Your task to perform on an android device: Open calendar and show me the second week of next month Image 0: 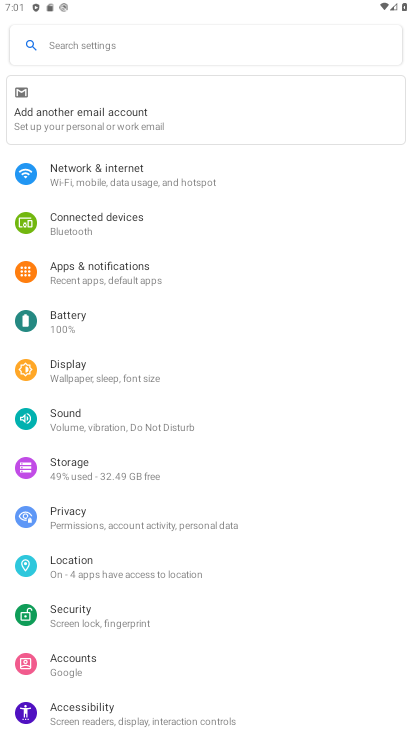
Step 0: press home button
Your task to perform on an android device: Open calendar and show me the second week of next month Image 1: 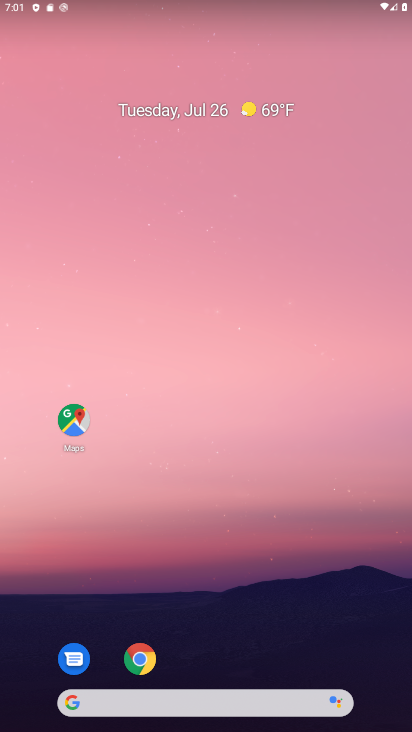
Step 1: drag from (197, 715) to (259, 103)
Your task to perform on an android device: Open calendar and show me the second week of next month Image 2: 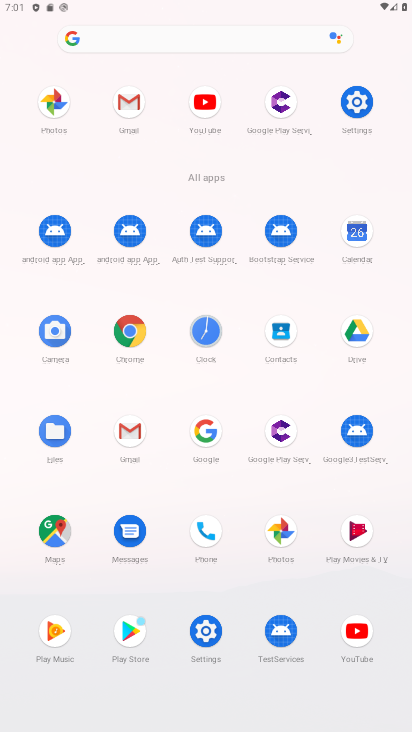
Step 2: click (349, 242)
Your task to perform on an android device: Open calendar and show me the second week of next month Image 3: 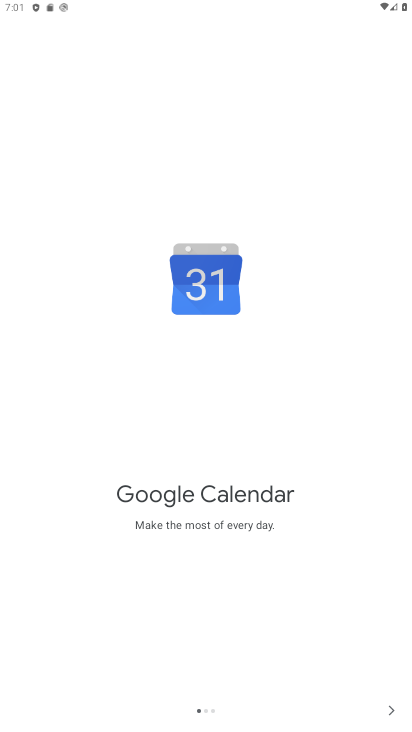
Step 3: click (389, 707)
Your task to perform on an android device: Open calendar and show me the second week of next month Image 4: 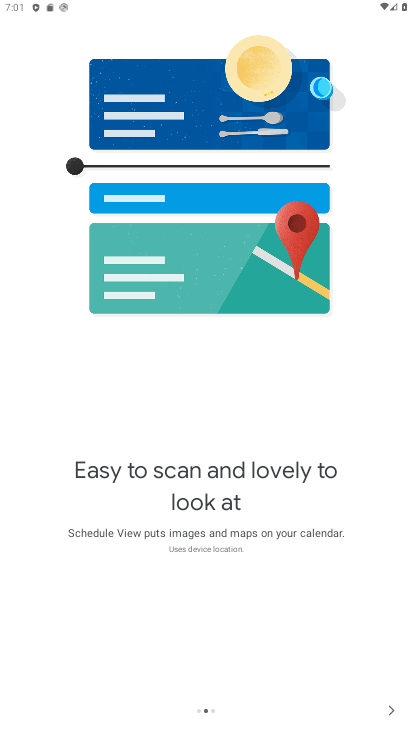
Step 4: click (366, 712)
Your task to perform on an android device: Open calendar and show me the second week of next month Image 5: 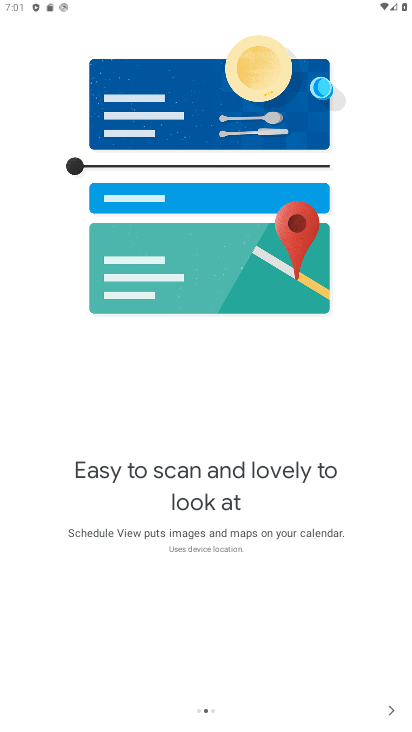
Step 5: click (378, 716)
Your task to perform on an android device: Open calendar and show me the second week of next month Image 6: 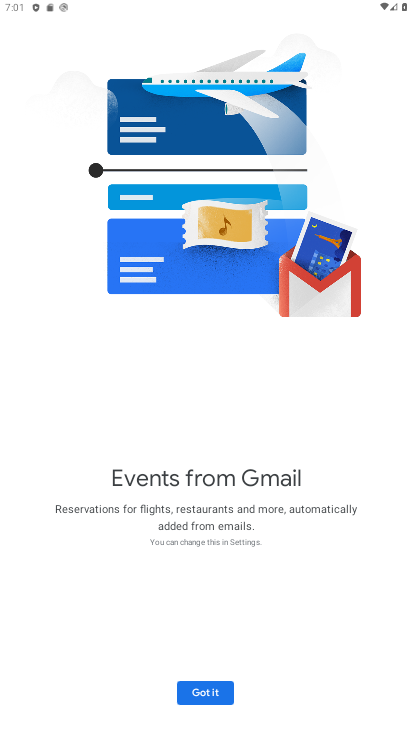
Step 6: click (205, 692)
Your task to perform on an android device: Open calendar and show me the second week of next month Image 7: 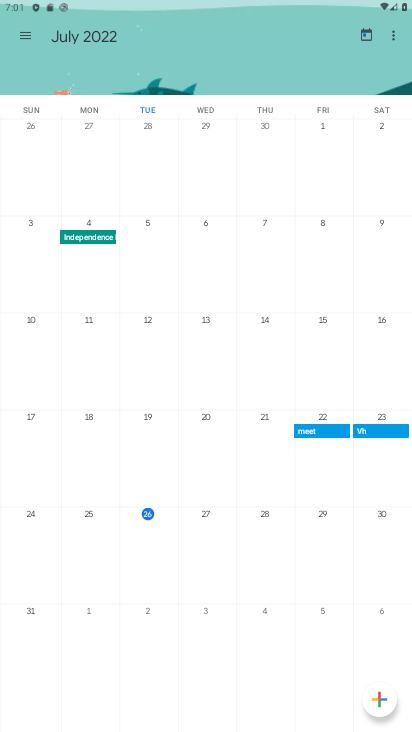
Step 7: drag from (370, 380) to (14, 339)
Your task to perform on an android device: Open calendar and show me the second week of next month Image 8: 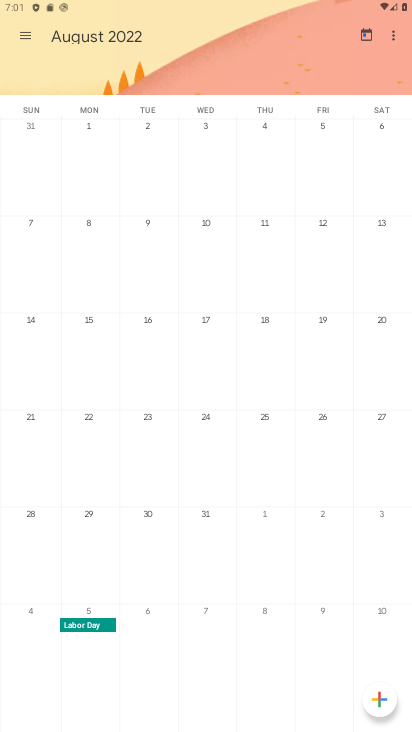
Step 8: click (101, 221)
Your task to perform on an android device: Open calendar and show me the second week of next month Image 9: 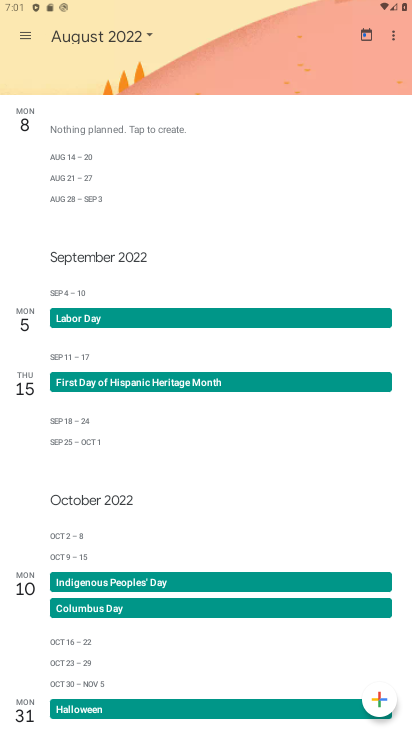
Step 9: task complete